Your task to perform on an android device: Set an alarmfor 5pm Image 0: 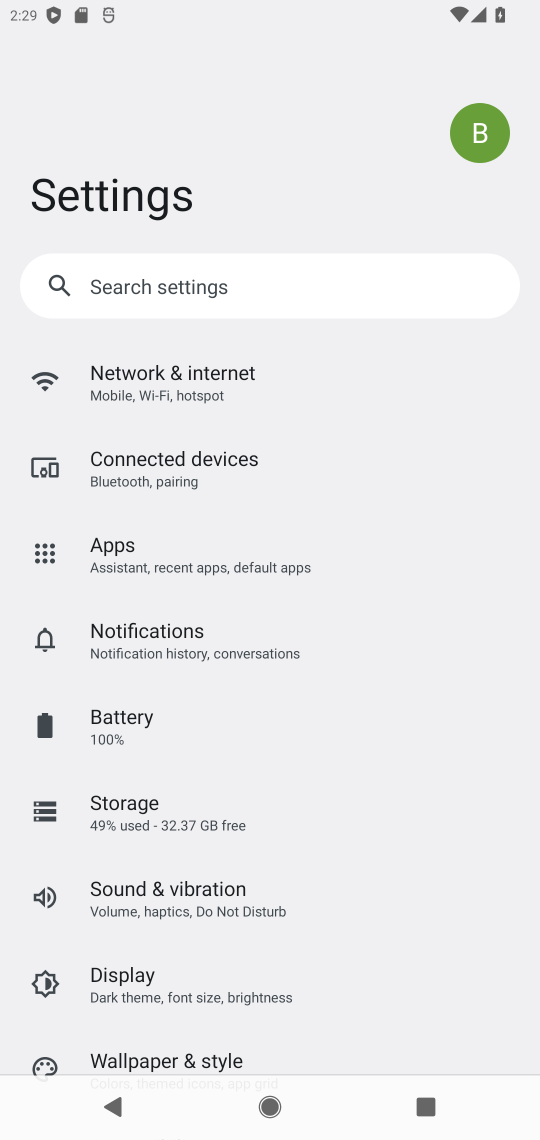
Step 0: press home button
Your task to perform on an android device: Set an alarmfor 5pm Image 1: 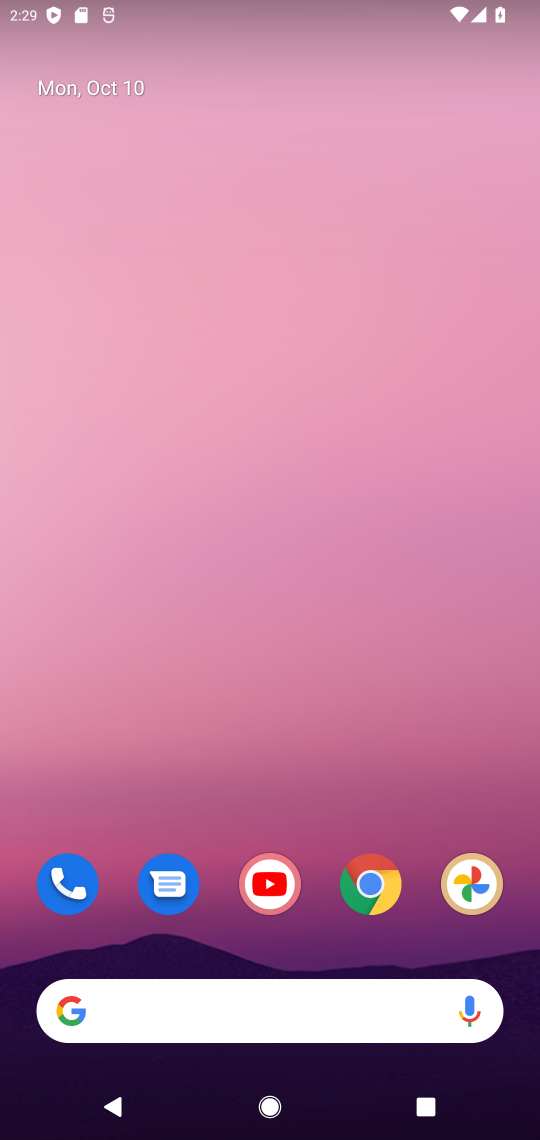
Step 1: drag from (325, 804) to (324, 226)
Your task to perform on an android device: Set an alarmfor 5pm Image 2: 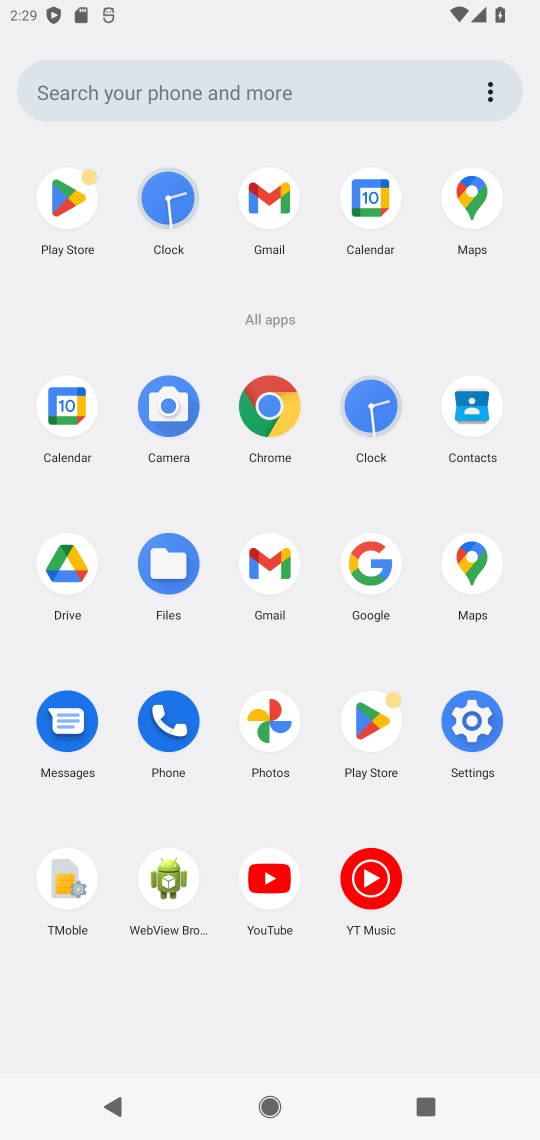
Step 2: click (163, 207)
Your task to perform on an android device: Set an alarmfor 5pm Image 3: 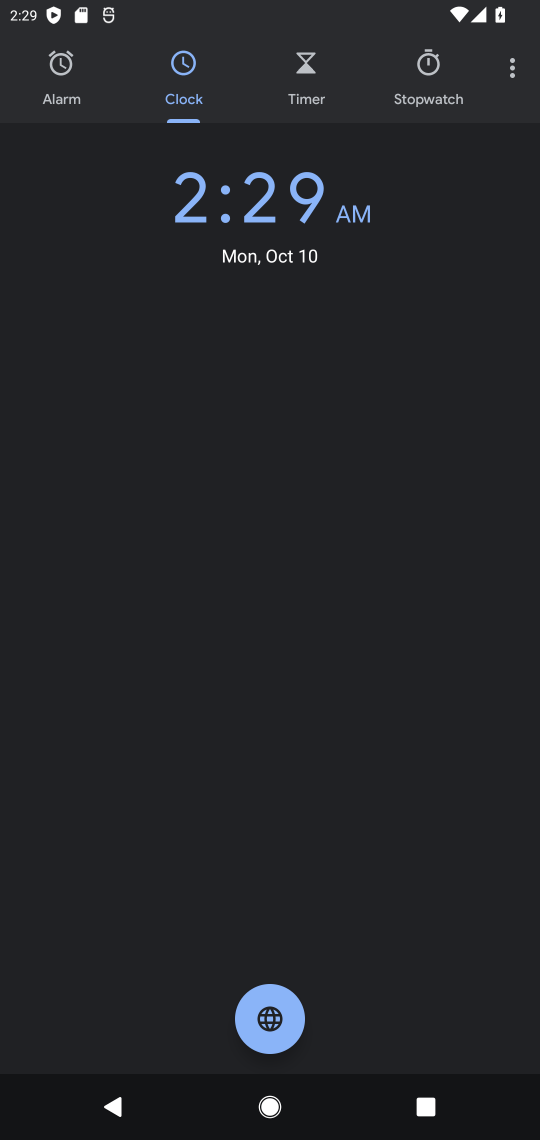
Step 3: click (57, 52)
Your task to perform on an android device: Set an alarmfor 5pm Image 4: 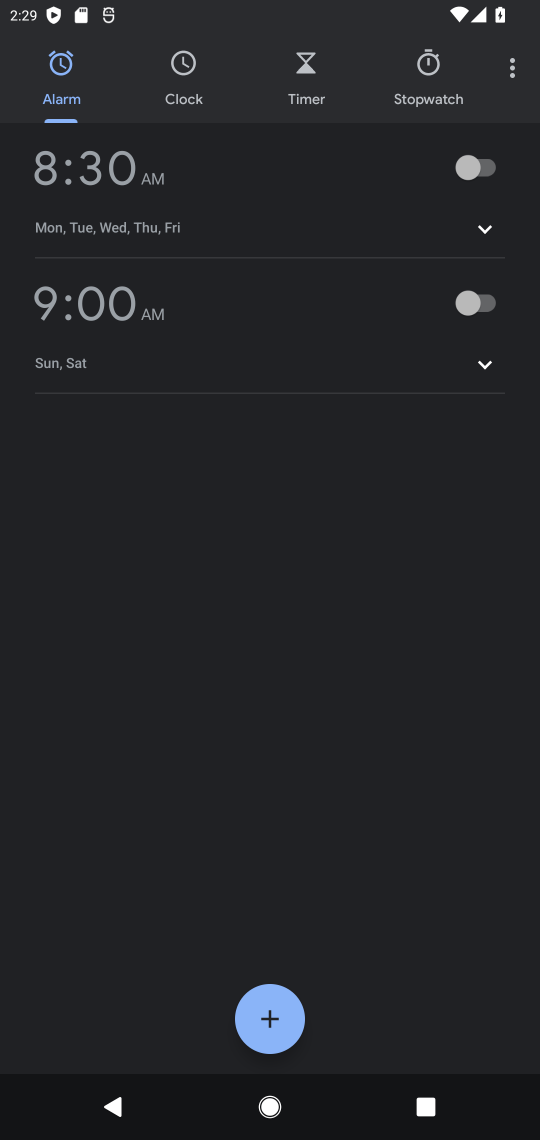
Step 4: click (273, 1017)
Your task to perform on an android device: Set an alarmfor 5pm Image 5: 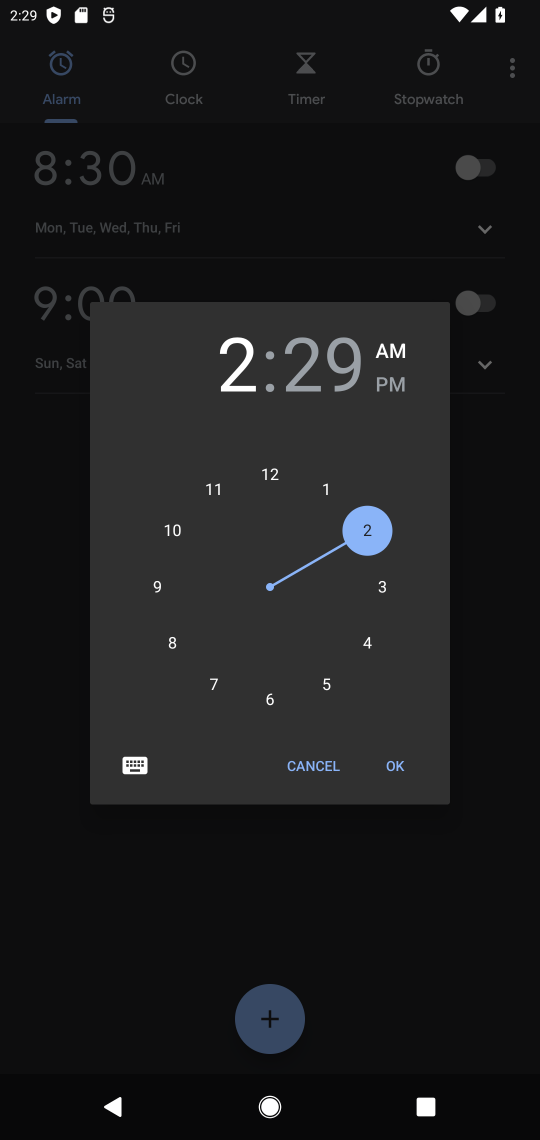
Step 5: click (390, 388)
Your task to perform on an android device: Set an alarmfor 5pm Image 6: 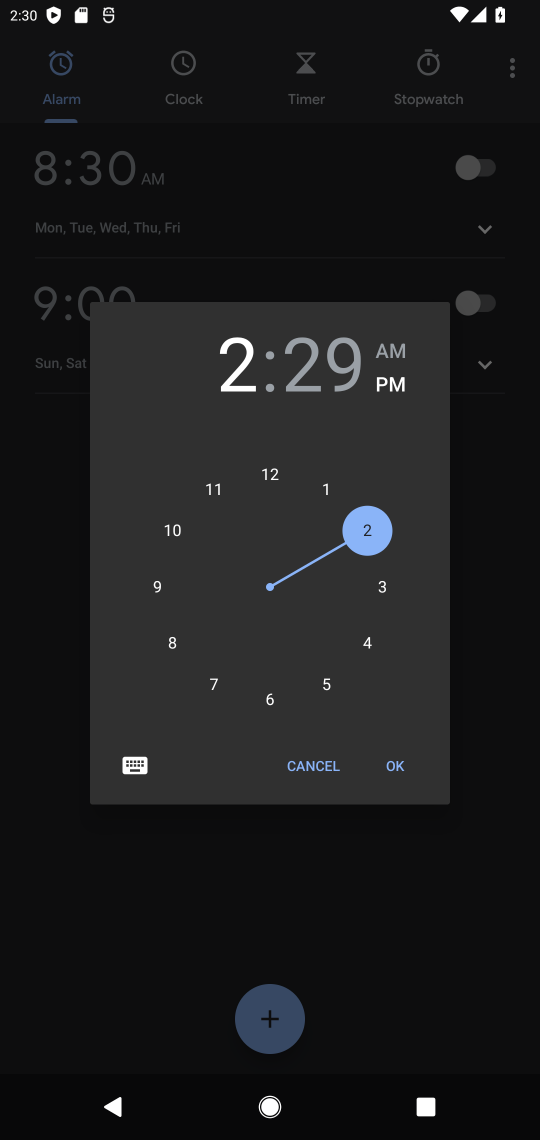
Step 6: click (324, 679)
Your task to perform on an android device: Set an alarmfor 5pm Image 7: 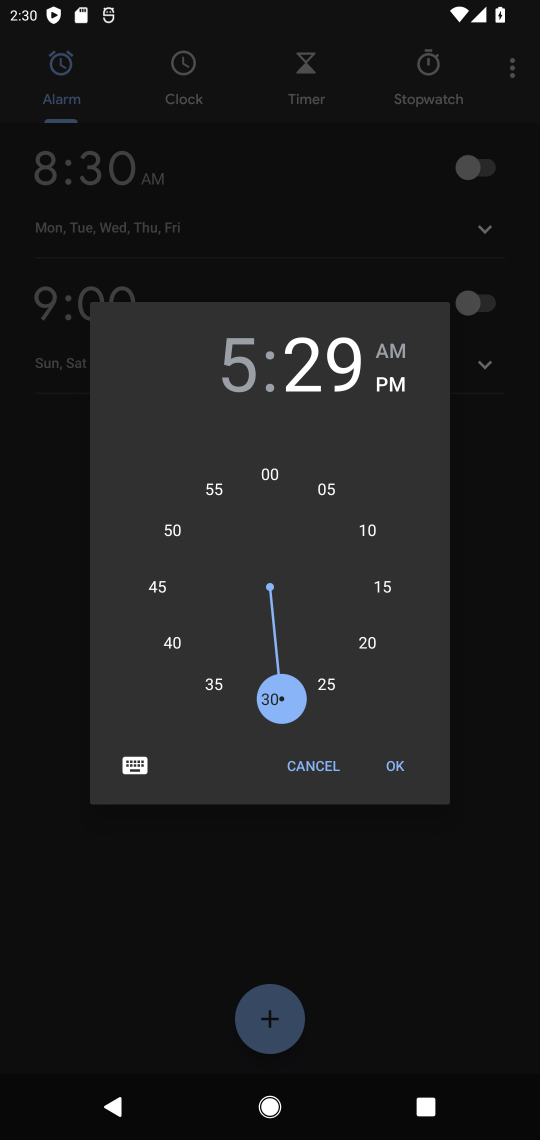
Step 7: click (266, 477)
Your task to perform on an android device: Set an alarmfor 5pm Image 8: 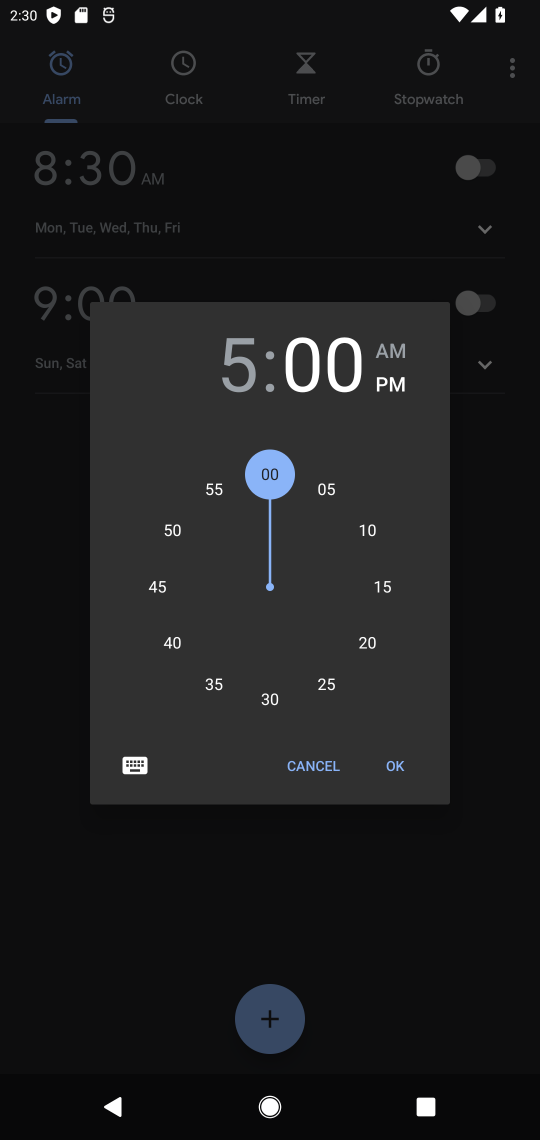
Step 8: click (391, 766)
Your task to perform on an android device: Set an alarmfor 5pm Image 9: 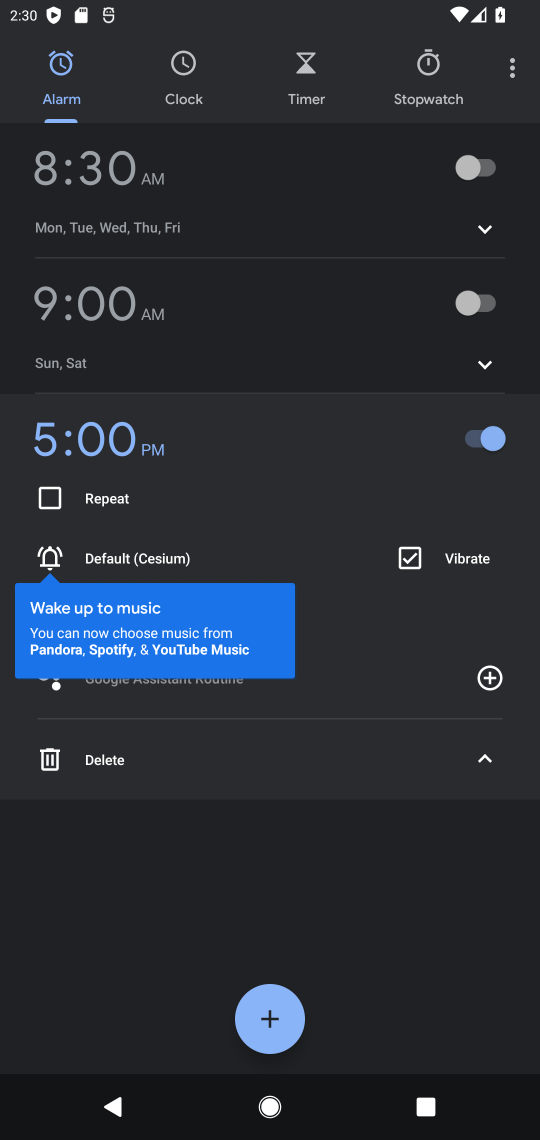
Step 9: task complete